Your task to perform on an android device: turn on translation in the chrome app Image 0: 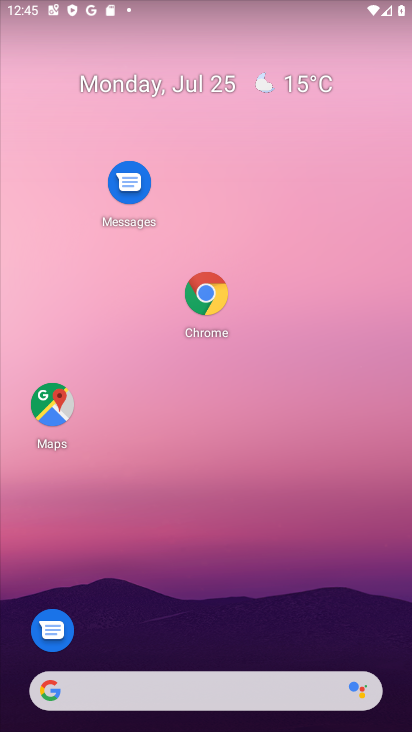
Step 0: drag from (248, 586) to (315, 134)
Your task to perform on an android device: turn on translation in the chrome app Image 1: 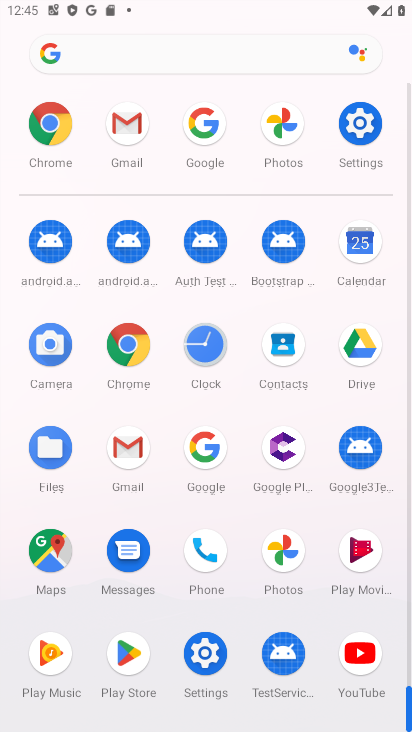
Step 1: click (121, 340)
Your task to perform on an android device: turn on translation in the chrome app Image 2: 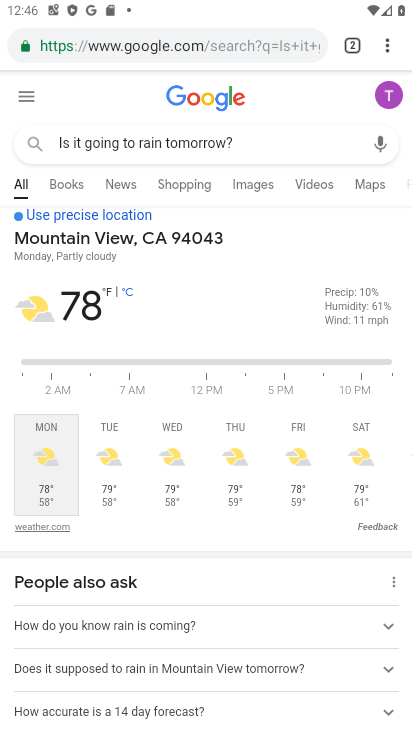
Step 2: drag from (384, 50) to (257, 554)
Your task to perform on an android device: turn on translation in the chrome app Image 3: 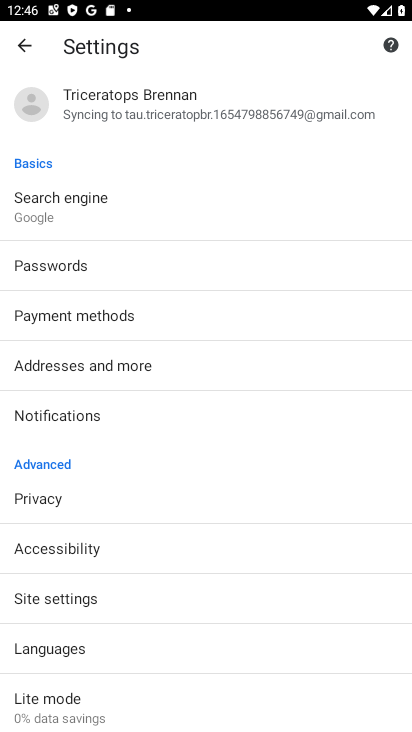
Step 3: click (68, 643)
Your task to perform on an android device: turn on translation in the chrome app Image 4: 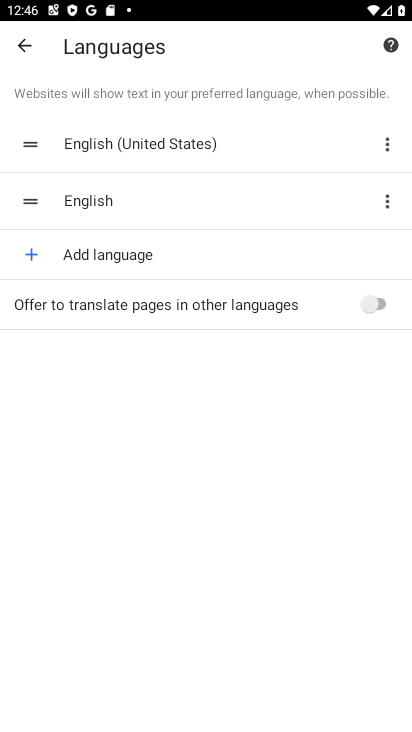
Step 4: click (324, 297)
Your task to perform on an android device: turn on translation in the chrome app Image 5: 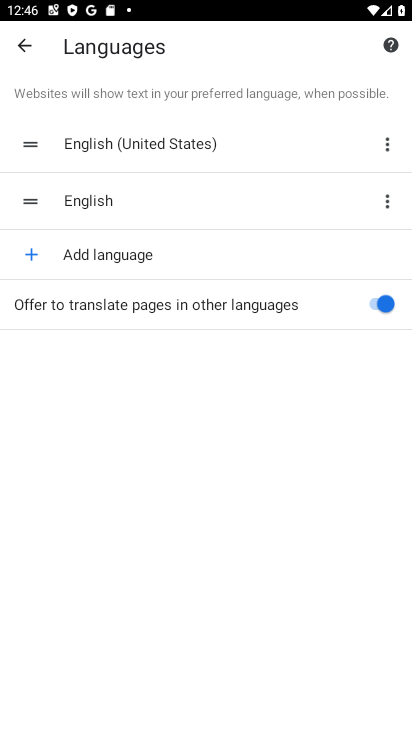
Step 5: task complete